Your task to perform on an android device: Open network settings Image 0: 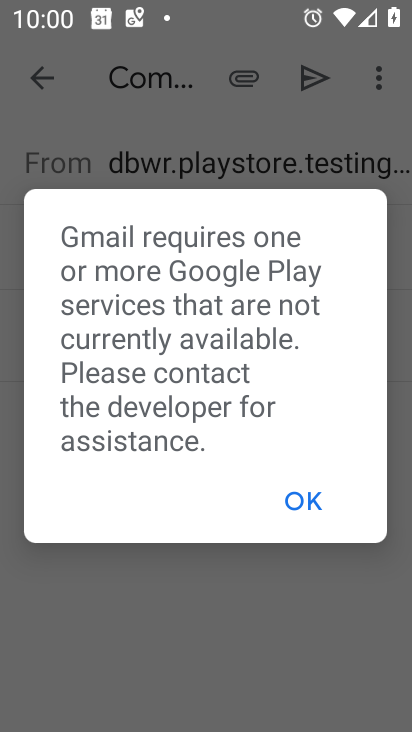
Step 0: click (310, 497)
Your task to perform on an android device: Open network settings Image 1: 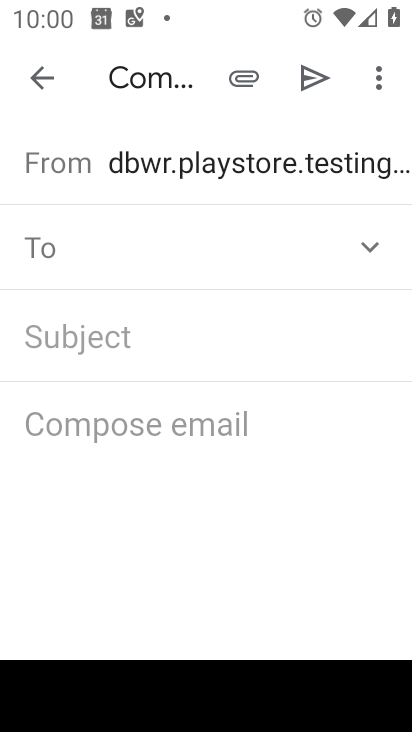
Step 1: click (30, 70)
Your task to perform on an android device: Open network settings Image 2: 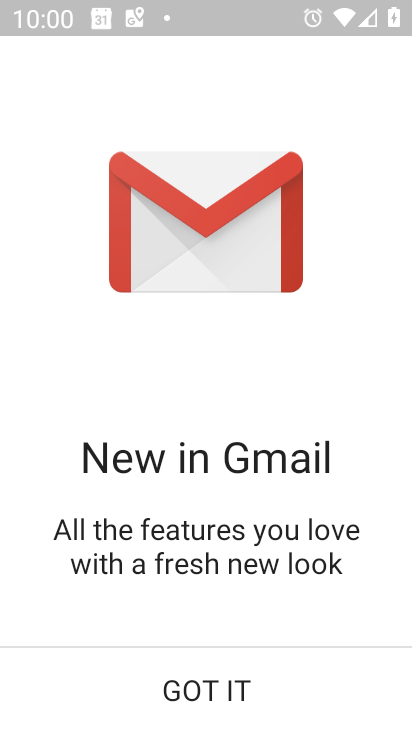
Step 2: press home button
Your task to perform on an android device: Open network settings Image 3: 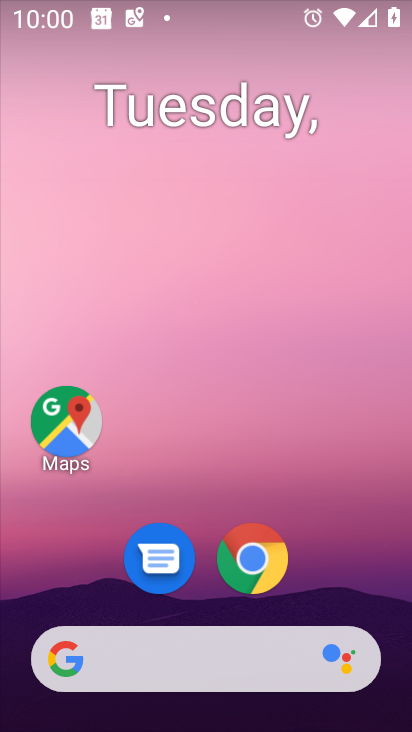
Step 3: drag from (325, 567) to (168, 0)
Your task to perform on an android device: Open network settings Image 4: 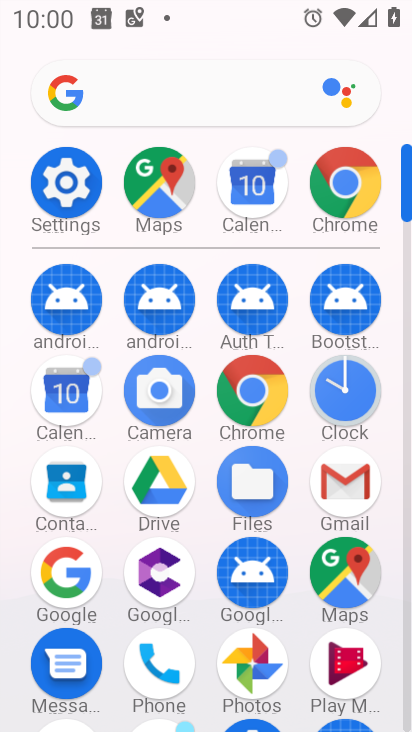
Step 4: click (72, 225)
Your task to perform on an android device: Open network settings Image 5: 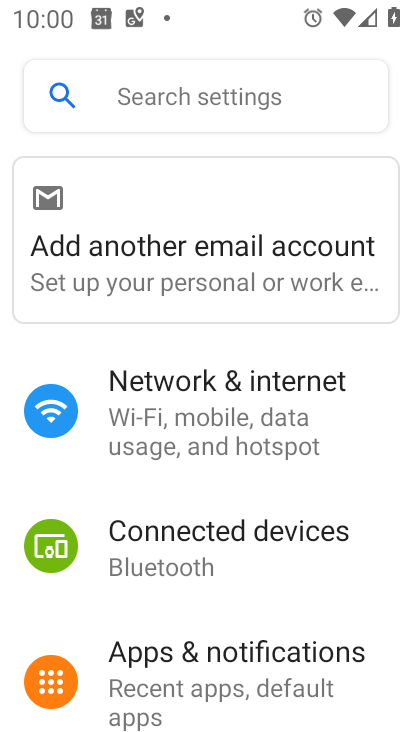
Step 5: click (188, 442)
Your task to perform on an android device: Open network settings Image 6: 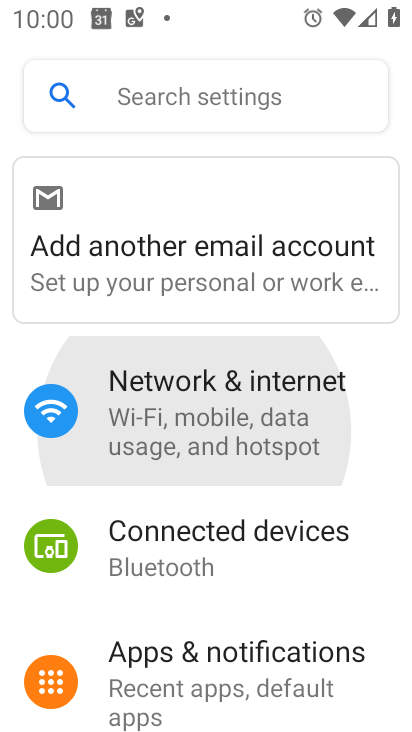
Step 6: click (188, 433)
Your task to perform on an android device: Open network settings Image 7: 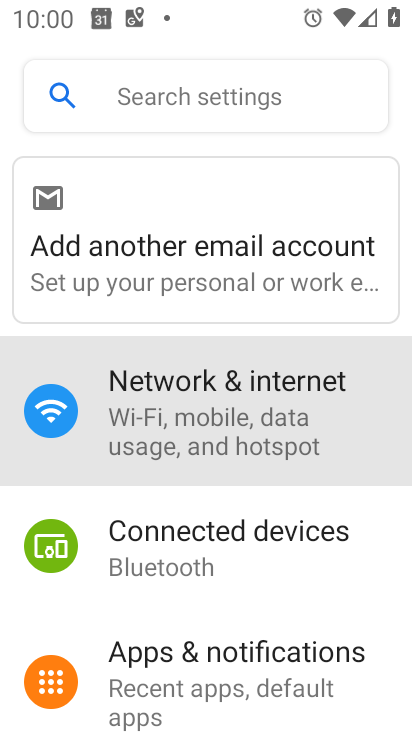
Step 7: click (188, 433)
Your task to perform on an android device: Open network settings Image 8: 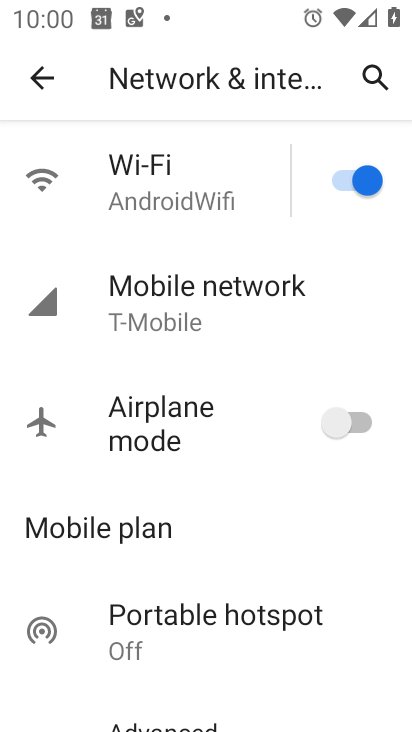
Step 8: click (168, 290)
Your task to perform on an android device: Open network settings Image 9: 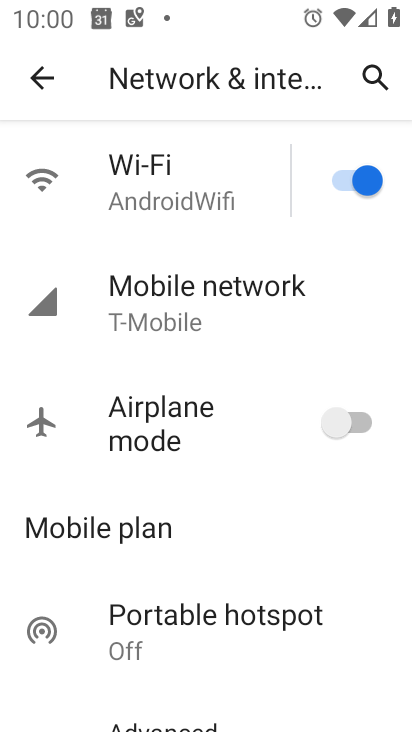
Step 9: click (168, 290)
Your task to perform on an android device: Open network settings Image 10: 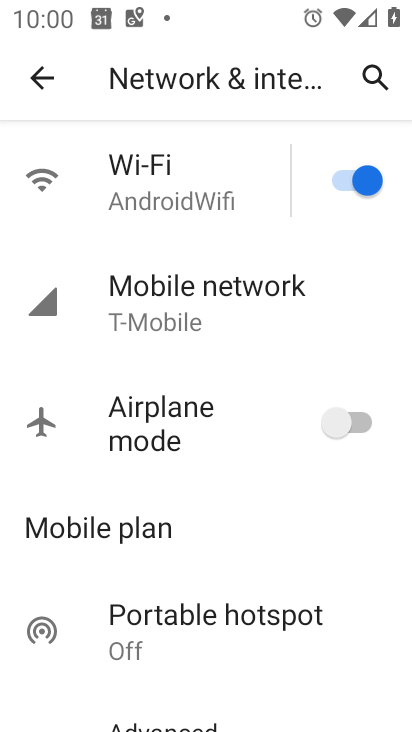
Step 10: click (169, 291)
Your task to perform on an android device: Open network settings Image 11: 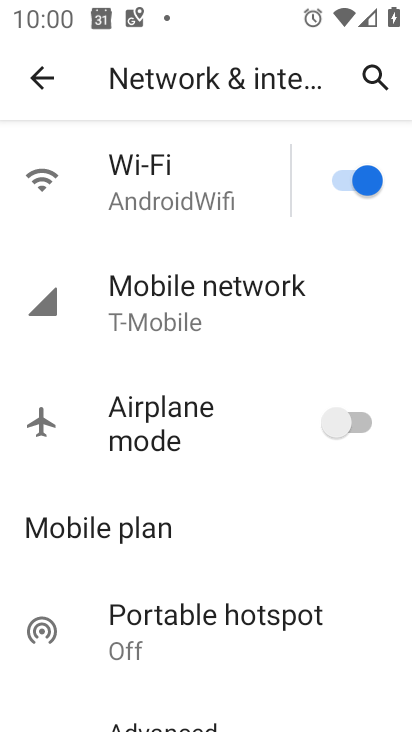
Step 11: click (169, 291)
Your task to perform on an android device: Open network settings Image 12: 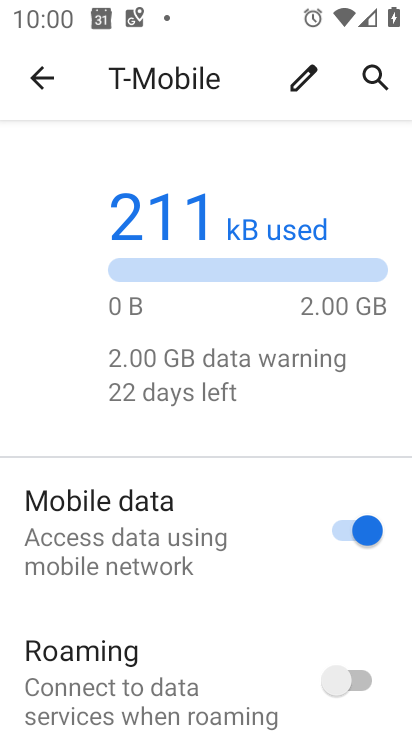
Step 12: task complete